Your task to perform on an android device: show emergency info Image 0: 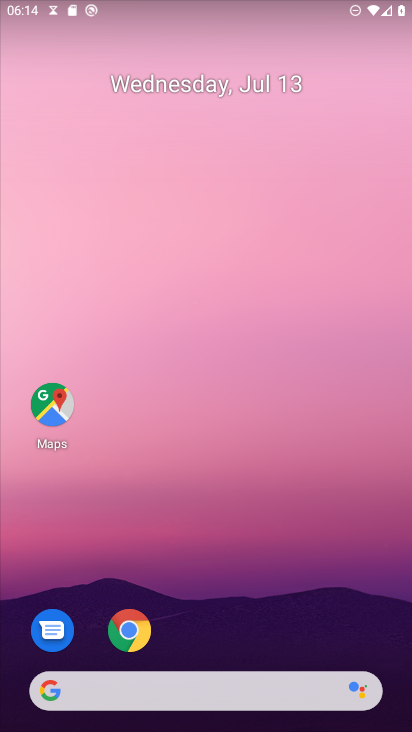
Step 0: drag from (325, 614) to (343, 51)
Your task to perform on an android device: show emergency info Image 1: 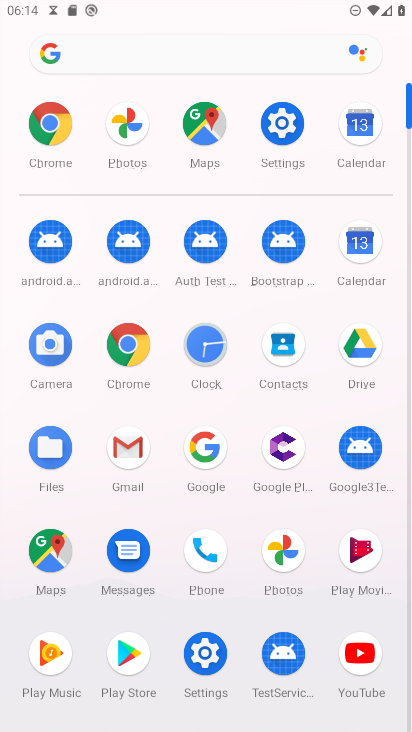
Step 1: click (274, 107)
Your task to perform on an android device: show emergency info Image 2: 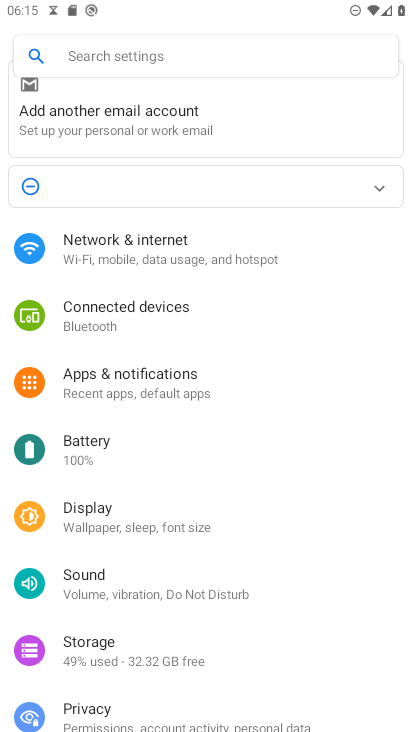
Step 2: drag from (125, 710) to (189, 27)
Your task to perform on an android device: show emergency info Image 3: 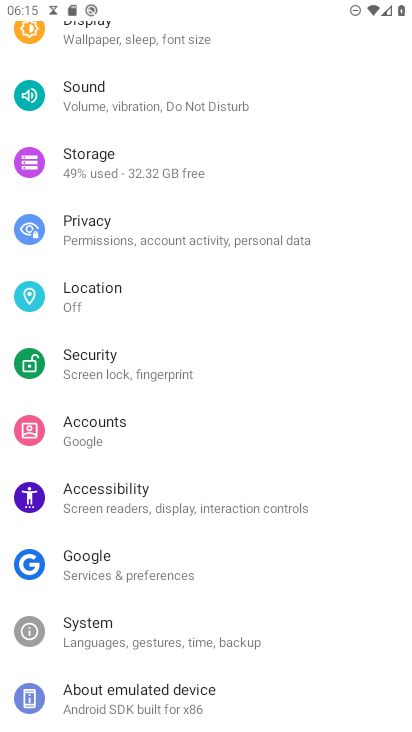
Step 3: click (189, 686)
Your task to perform on an android device: show emergency info Image 4: 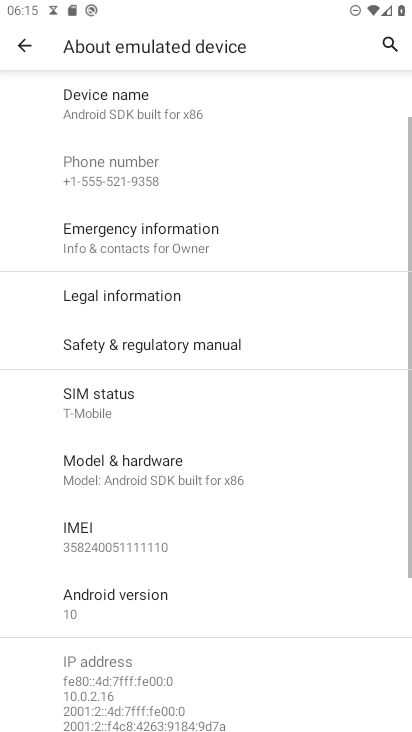
Step 4: click (197, 247)
Your task to perform on an android device: show emergency info Image 5: 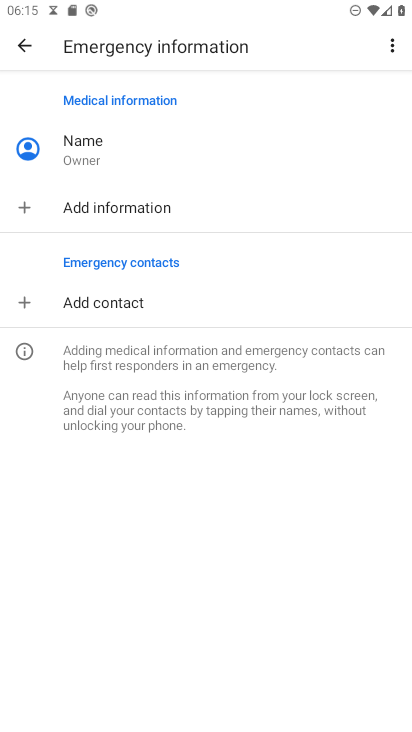
Step 5: task complete